Your task to perform on an android device: turn pop-ups on in chrome Image 0: 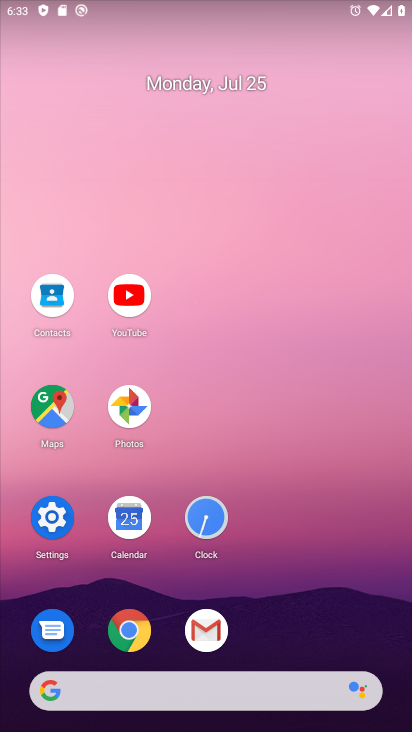
Step 0: click (130, 626)
Your task to perform on an android device: turn pop-ups on in chrome Image 1: 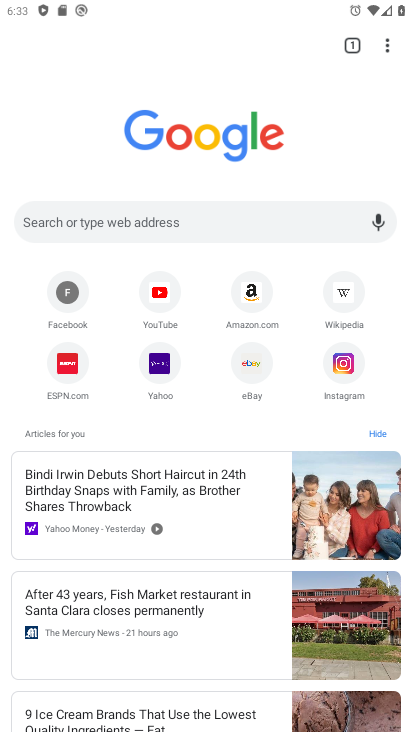
Step 1: click (387, 45)
Your task to perform on an android device: turn pop-ups on in chrome Image 2: 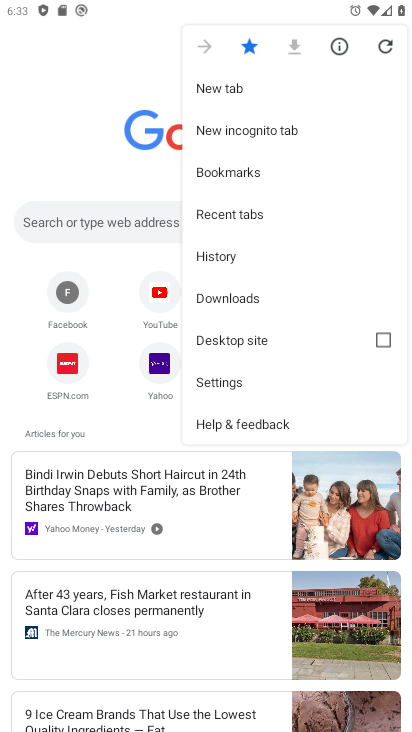
Step 2: click (227, 380)
Your task to perform on an android device: turn pop-ups on in chrome Image 3: 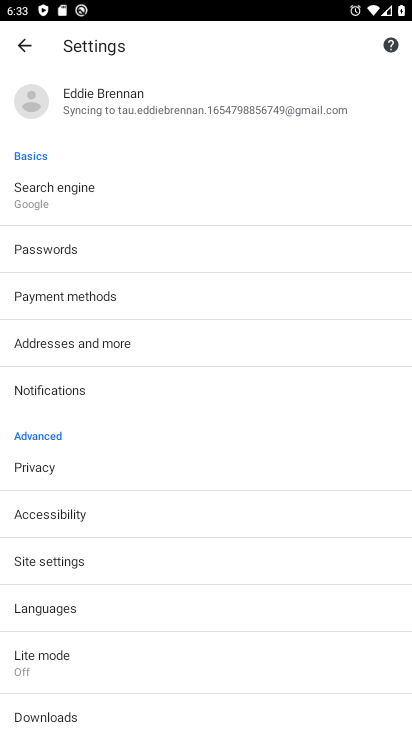
Step 3: click (52, 563)
Your task to perform on an android device: turn pop-ups on in chrome Image 4: 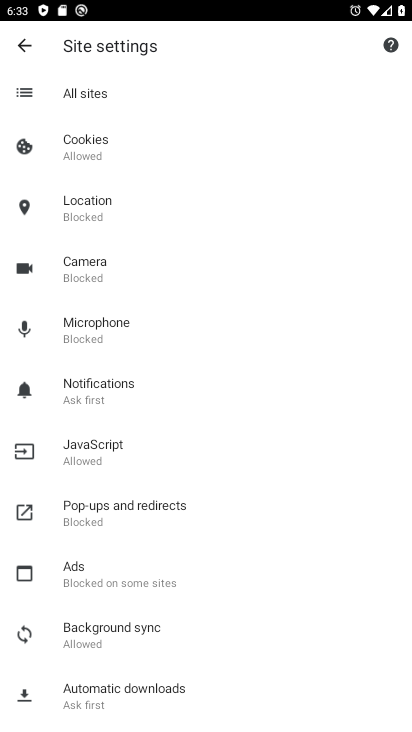
Step 4: click (100, 504)
Your task to perform on an android device: turn pop-ups on in chrome Image 5: 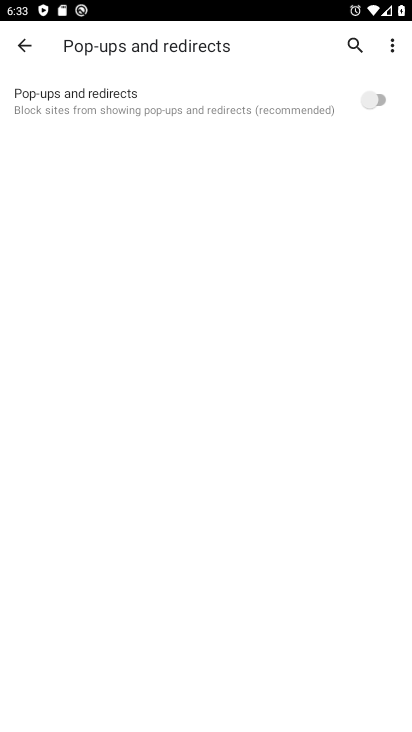
Step 5: click (369, 92)
Your task to perform on an android device: turn pop-ups on in chrome Image 6: 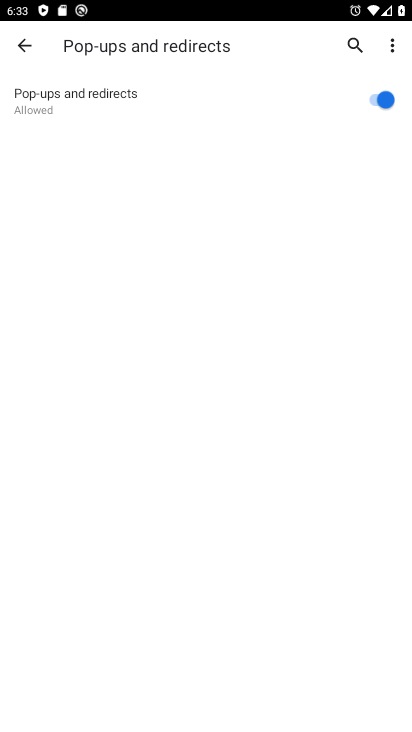
Step 6: task complete